Your task to perform on an android device: Search for "logitech g pro" on walmart, select the first entry, add it to the cart, then select checkout. Image 0: 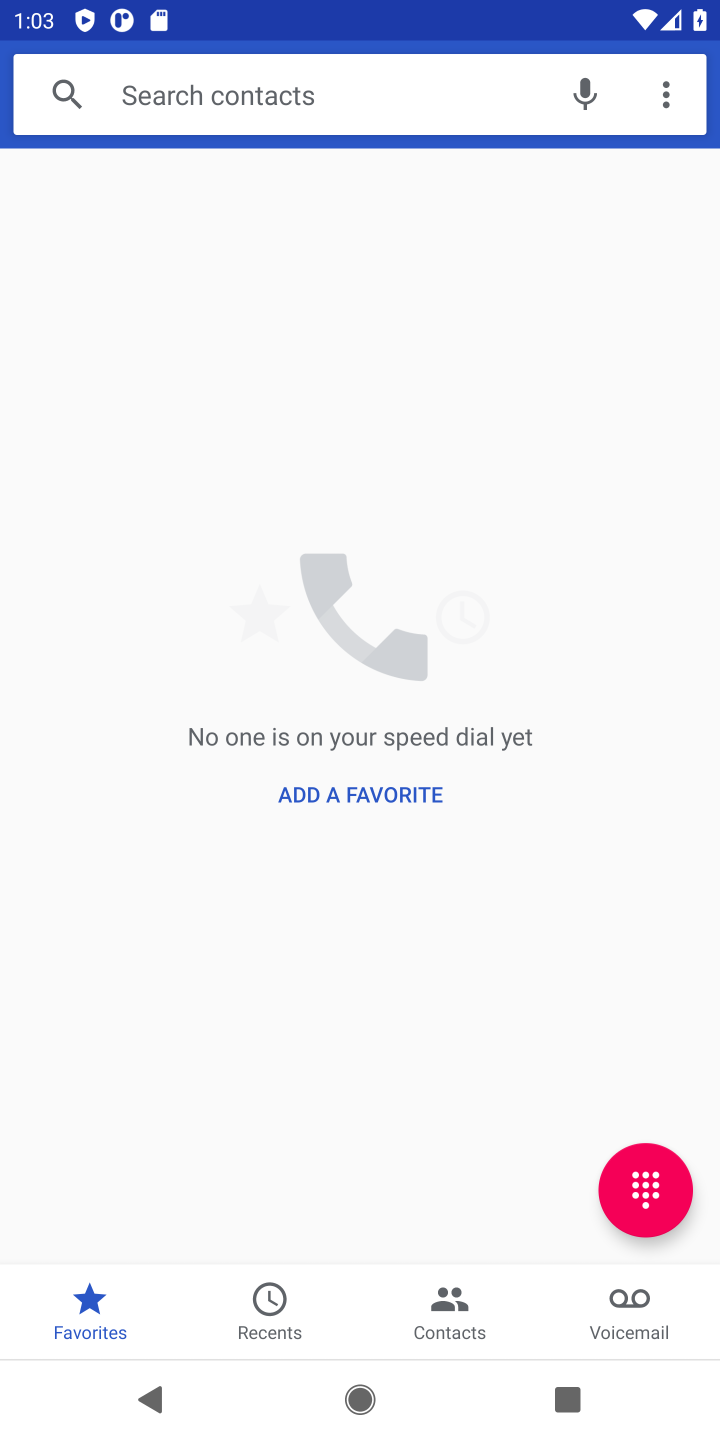
Step 0: press home button
Your task to perform on an android device: Search for "logitech g pro" on walmart, select the first entry, add it to the cart, then select checkout. Image 1: 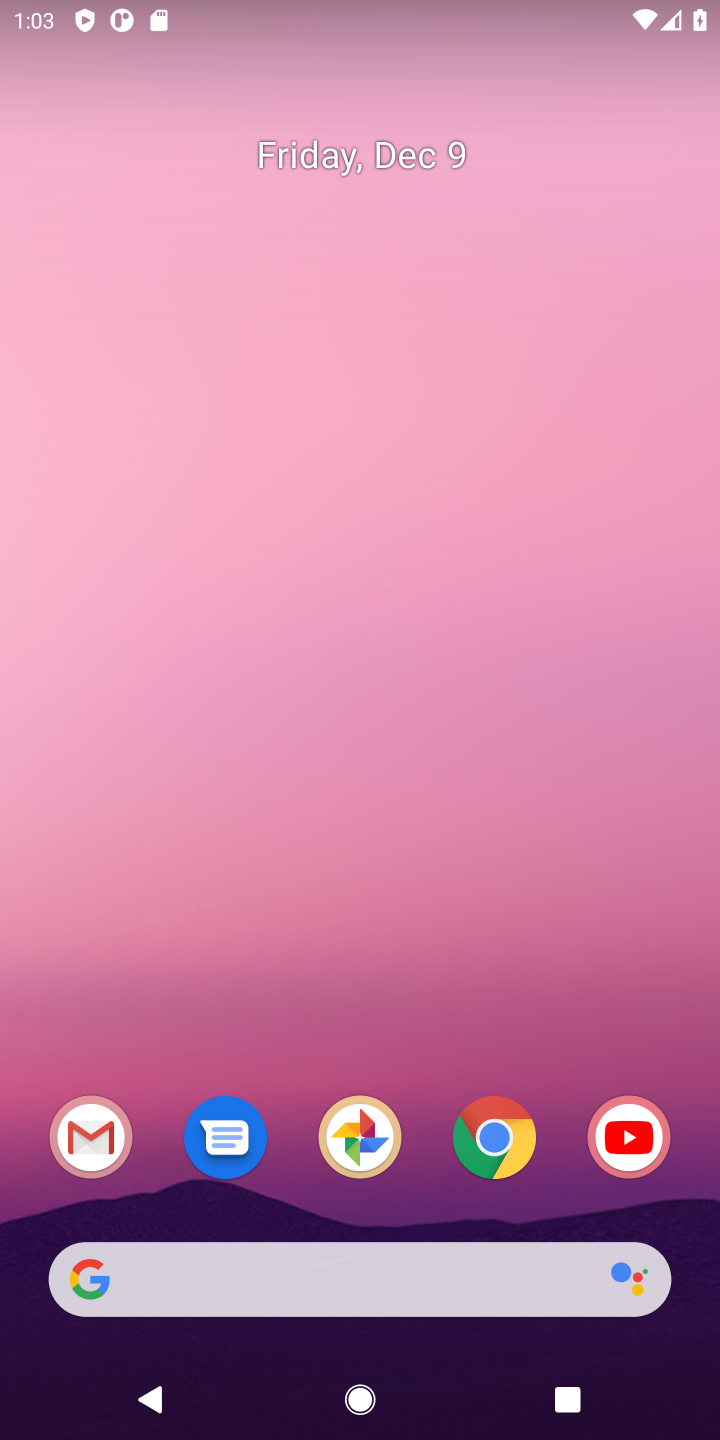
Step 1: click (496, 1145)
Your task to perform on an android device: Search for "logitech g pro" on walmart, select the first entry, add it to the cart, then select checkout. Image 2: 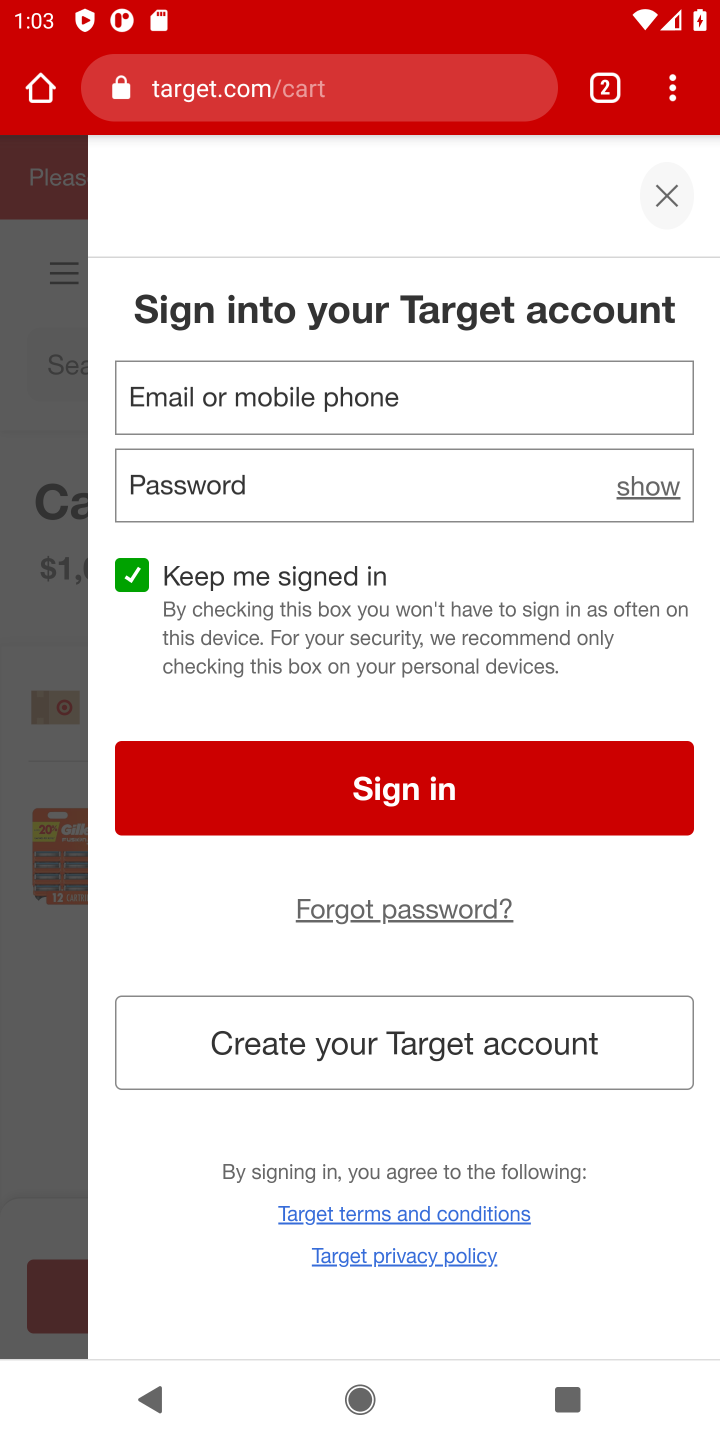
Step 2: click (341, 85)
Your task to perform on an android device: Search for "logitech g pro" on walmart, select the first entry, add it to the cart, then select checkout. Image 3: 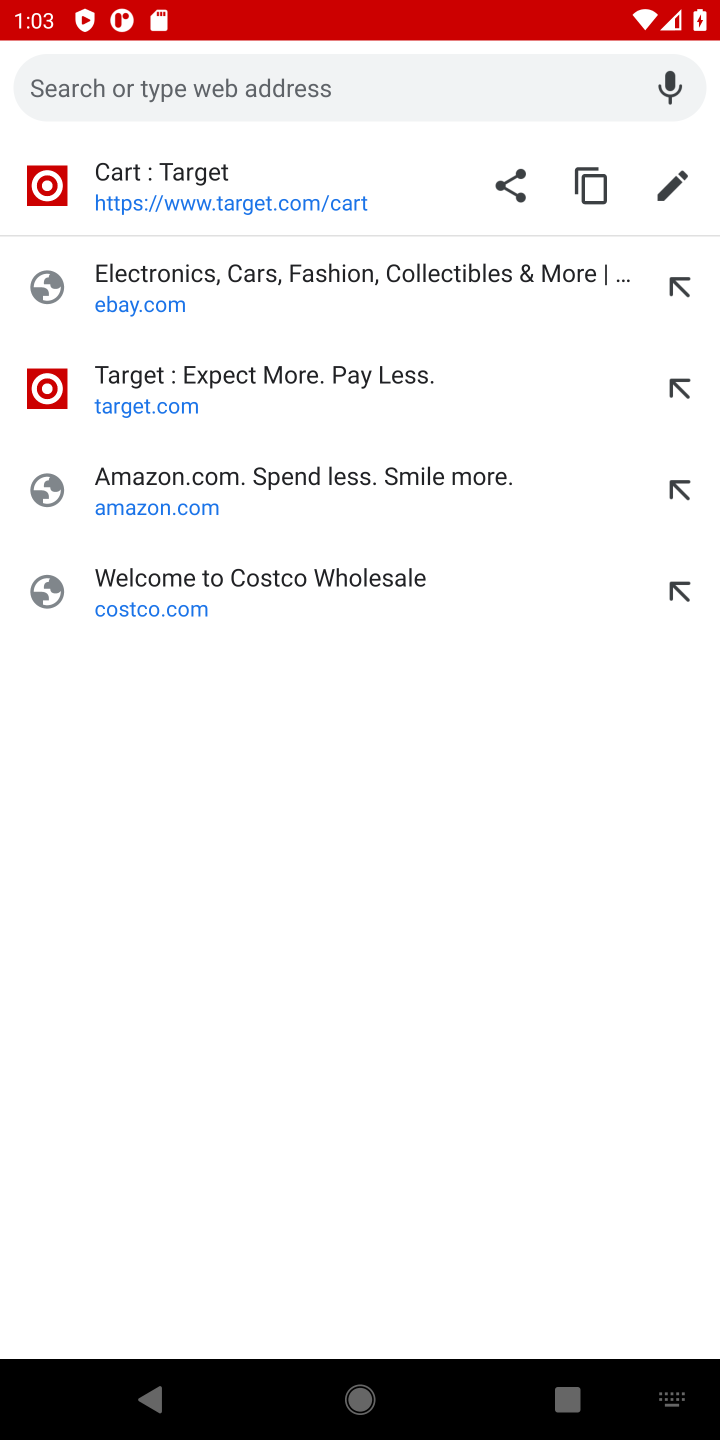
Step 3: type "WALMART"
Your task to perform on an android device: Search for "logitech g pro" on walmart, select the first entry, add it to the cart, then select checkout. Image 4: 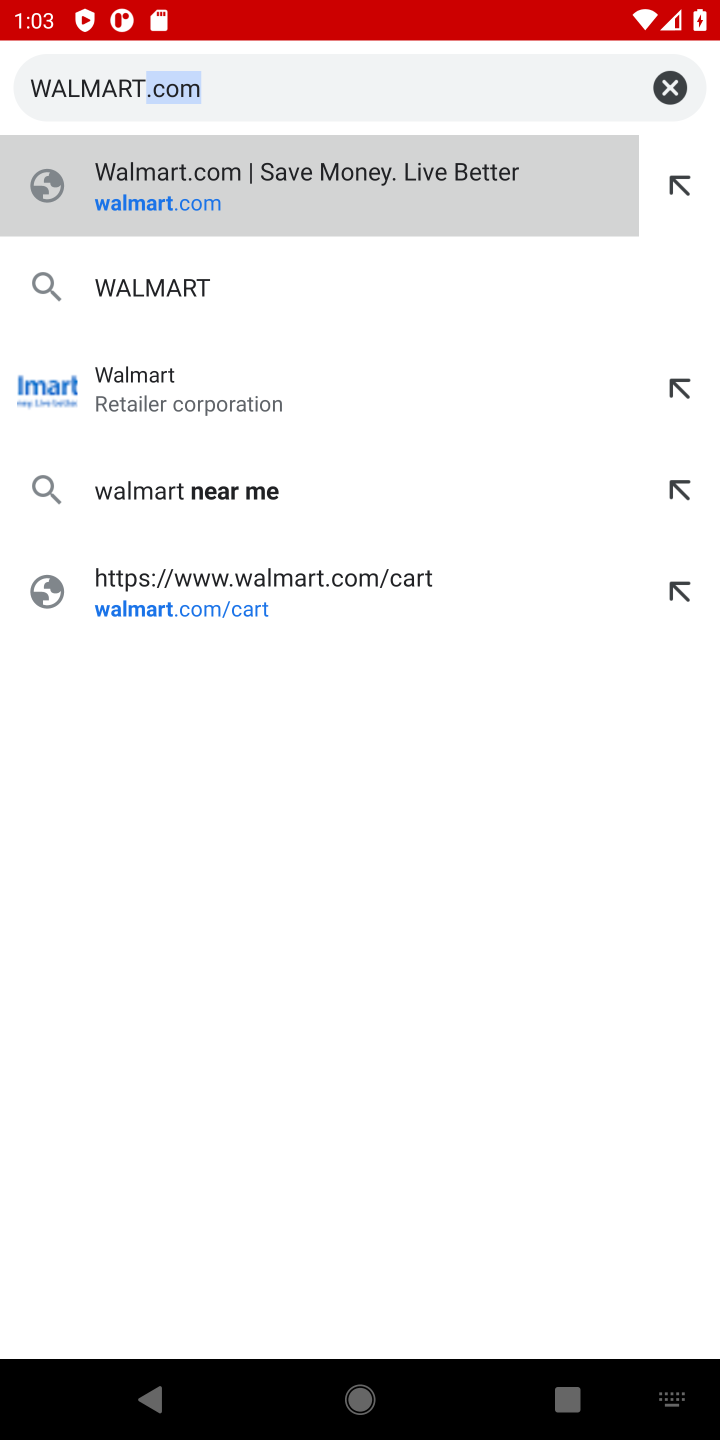
Step 4: click (256, 208)
Your task to perform on an android device: Search for "logitech g pro" on walmart, select the first entry, add it to the cart, then select checkout. Image 5: 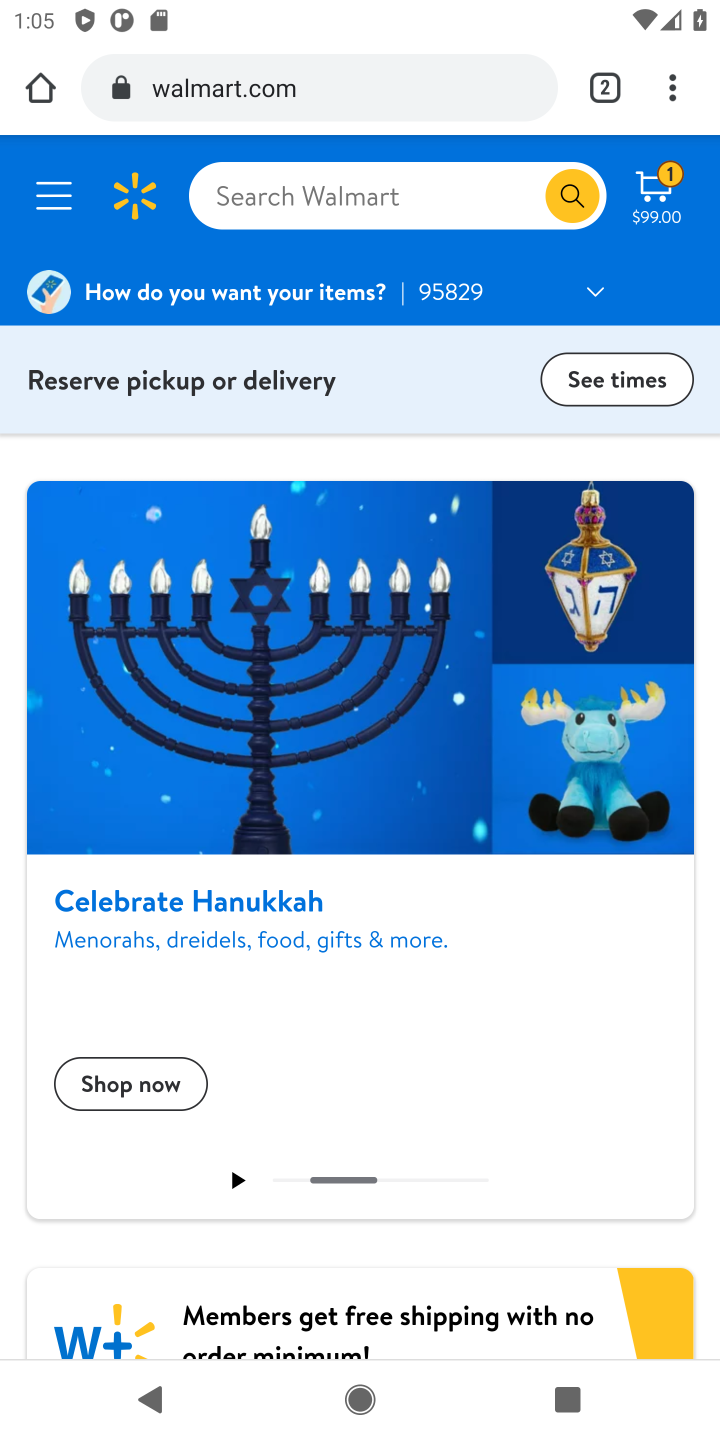
Step 5: task complete